Your task to perform on an android device: Go to Reddit.com Image 0: 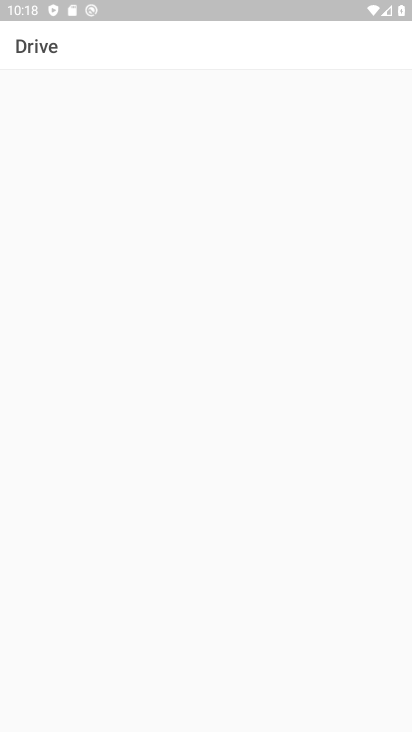
Step 0: press home button
Your task to perform on an android device: Go to Reddit.com Image 1: 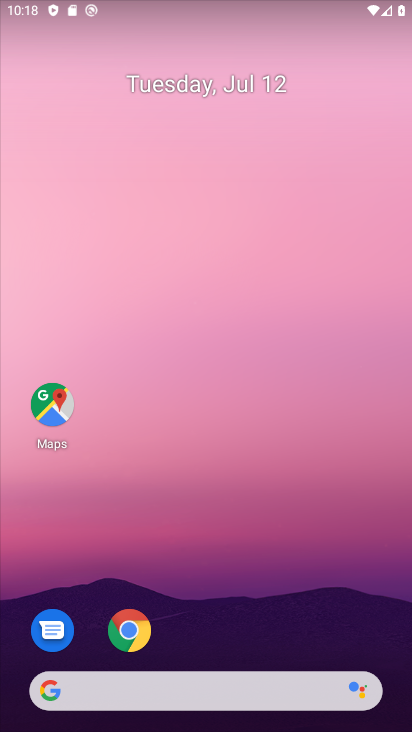
Step 1: click (168, 687)
Your task to perform on an android device: Go to Reddit.com Image 2: 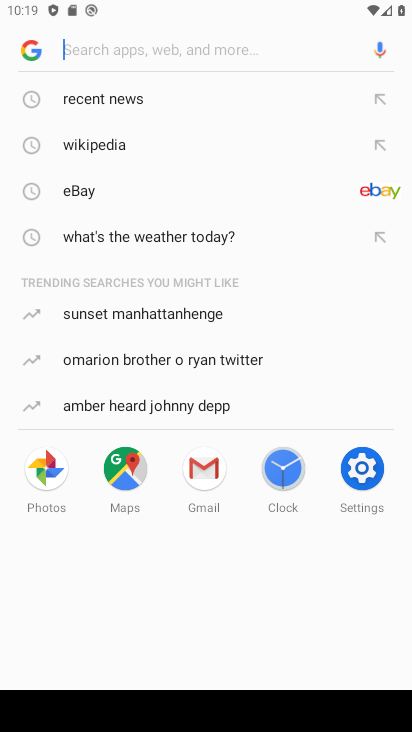
Step 2: type "Reddit.com"
Your task to perform on an android device: Go to Reddit.com Image 3: 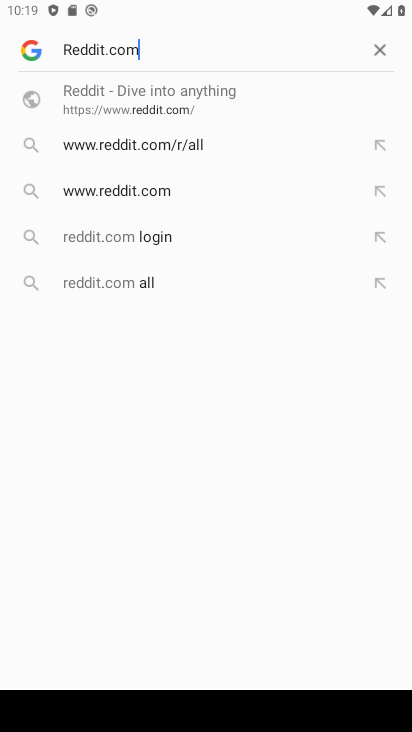
Step 3: click (240, 103)
Your task to perform on an android device: Go to Reddit.com Image 4: 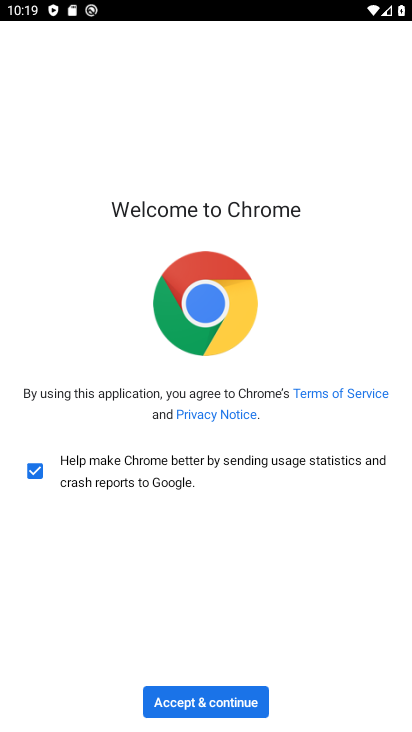
Step 4: click (220, 702)
Your task to perform on an android device: Go to Reddit.com Image 5: 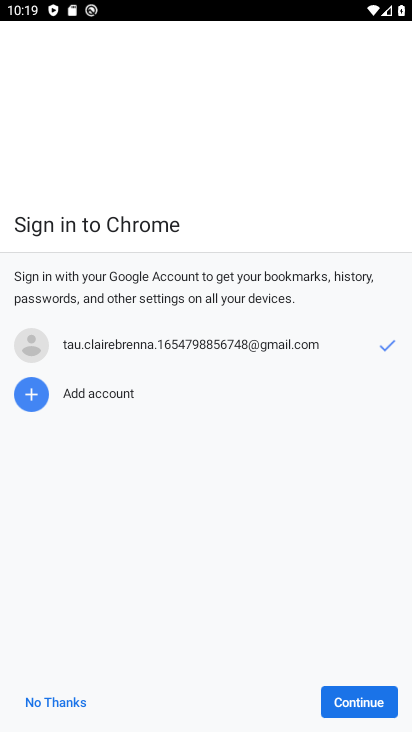
Step 5: click (370, 697)
Your task to perform on an android device: Go to Reddit.com Image 6: 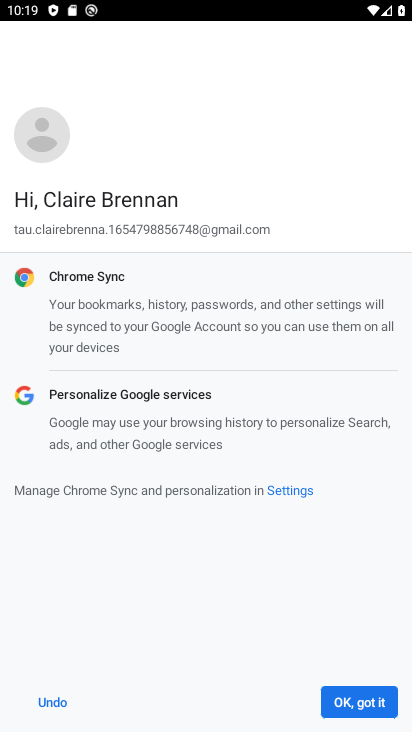
Step 6: click (371, 696)
Your task to perform on an android device: Go to Reddit.com Image 7: 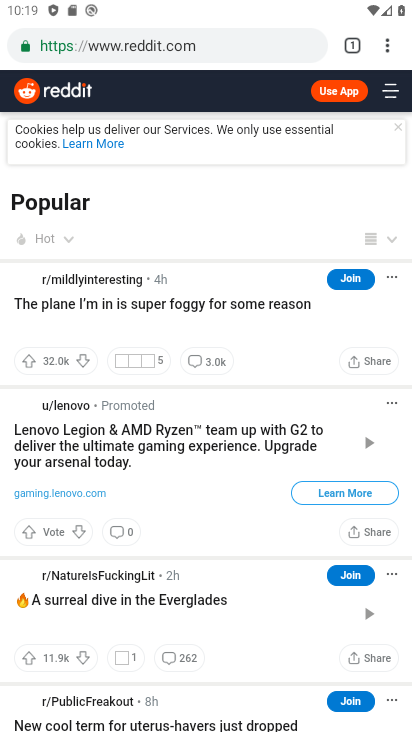
Step 7: task complete